Your task to perform on an android device: Check the weather Image 0: 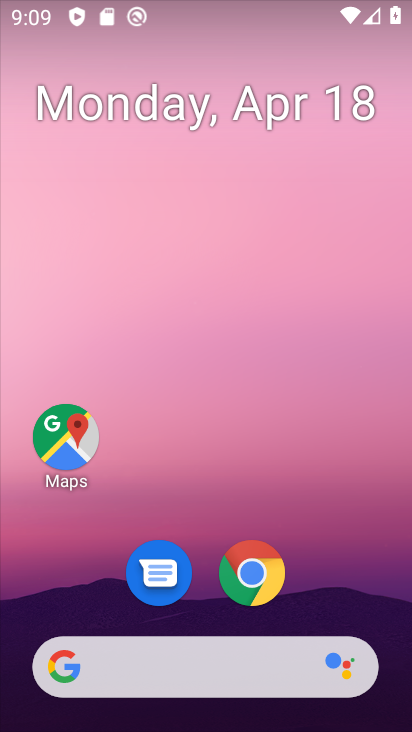
Step 0: drag from (39, 159) to (351, 255)
Your task to perform on an android device: Check the weather Image 1: 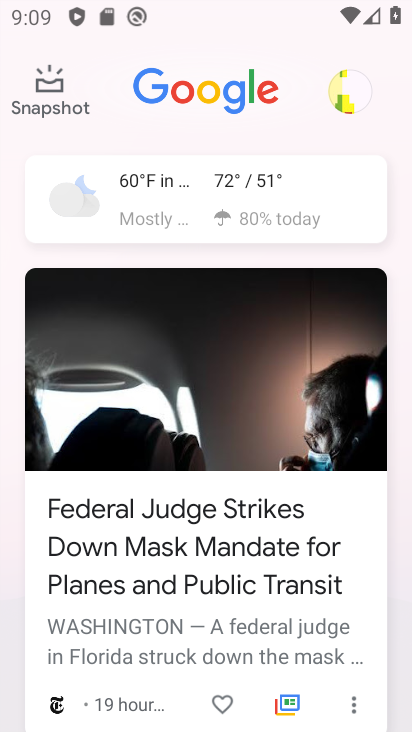
Step 1: click (230, 188)
Your task to perform on an android device: Check the weather Image 2: 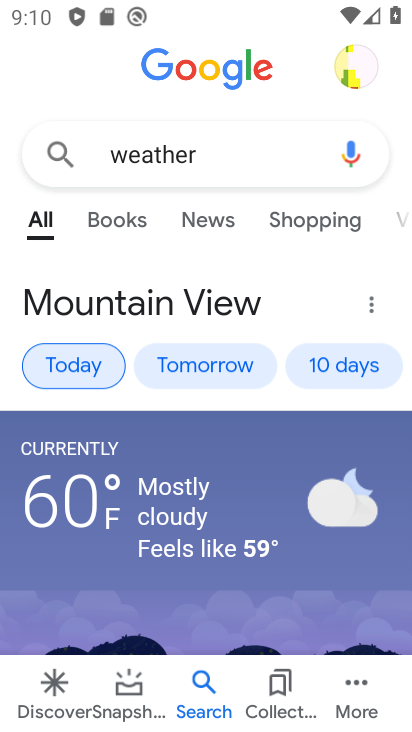
Step 2: task complete